Your task to perform on an android device: install app "ZOOM Cloud Meetings" Image 0: 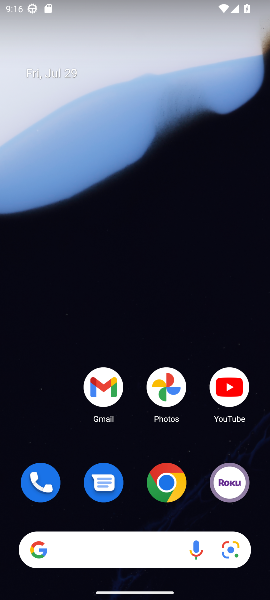
Step 0: drag from (144, 591) to (130, 138)
Your task to perform on an android device: install app "ZOOM Cloud Meetings" Image 1: 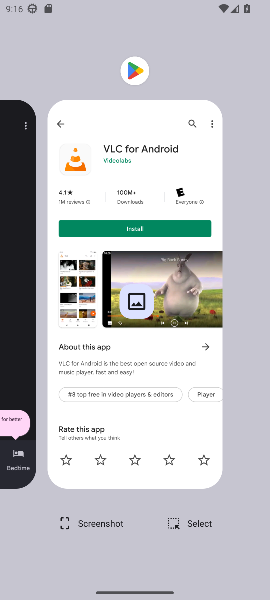
Step 1: press home button
Your task to perform on an android device: install app "ZOOM Cloud Meetings" Image 2: 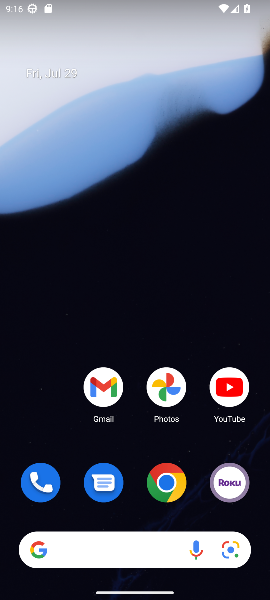
Step 2: drag from (144, 594) to (144, 487)
Your task to perform on an android device: install app "ZOOM Cloud Meetings" Image 3: 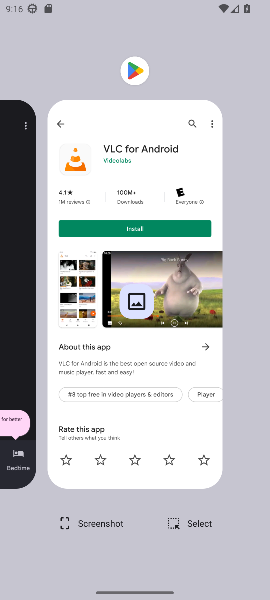
Step 3: click (162, 195)
Your task to perform on an android device: install app "ZOOM Cloud Meetings" Image 4: 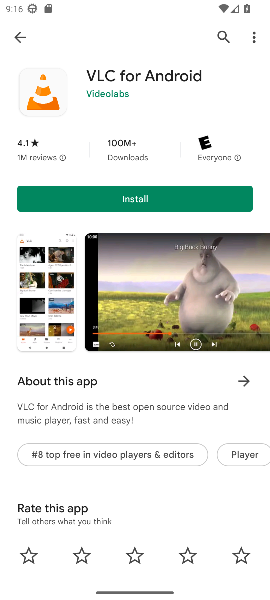
Step 4: click (224, 32)
Your task to perform on an android device: install app "ZOOM Cloud Meetings" Image 5: 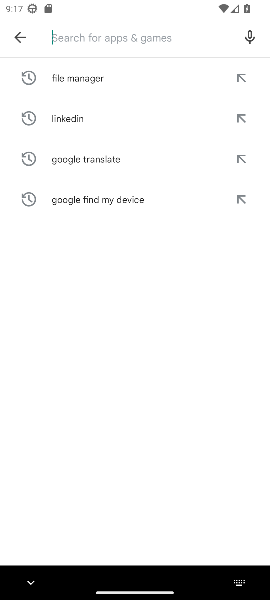
Step 5: type "ZOOM Cloud Meeting"
Your task to perform on an android device: install app "ZOOM Cloud Meetings" Image 6: 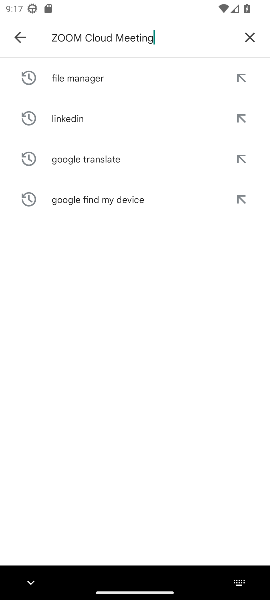
Step 6: type ""
Your task to perform on an android device: install app "ZOOM Cloud Meetings" Image 7: 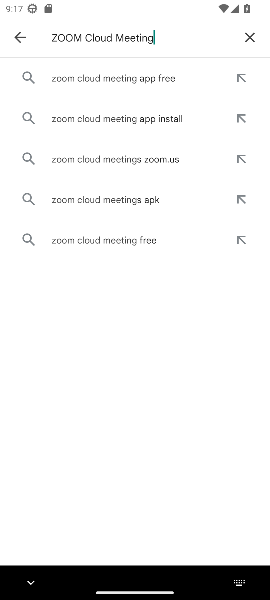
Step 7: click (114, 78)
Your task to perform on an android device: install app "ZOOM Cloud Meetings" Image 8: 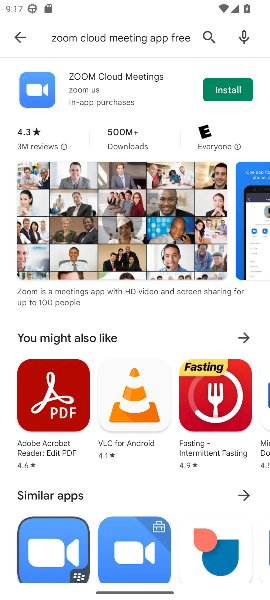
Step 8: click (237, 82)
Your task to perform on an android device: install app "ZOOM Cloud Meetings" Image 9: 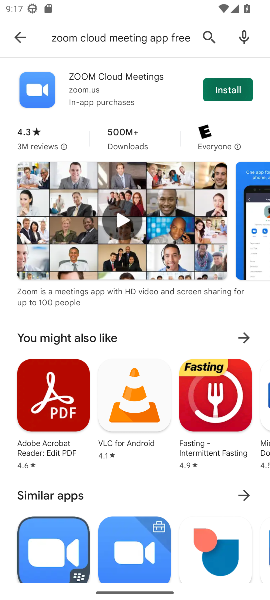
Step 9: click (233, 88)
Your task to perform on an android device: install app "ZOOM Cloud Meetings" Image 10: 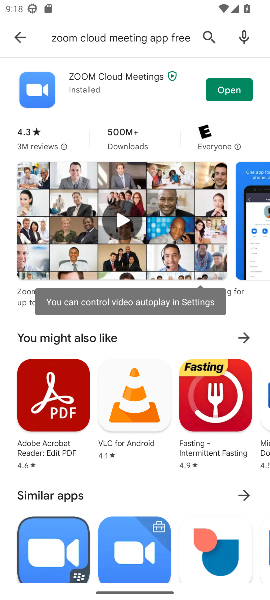
Step 10: task complete